Your task to perform on an android device: turn on priority inbox in the gmail app Image 0: 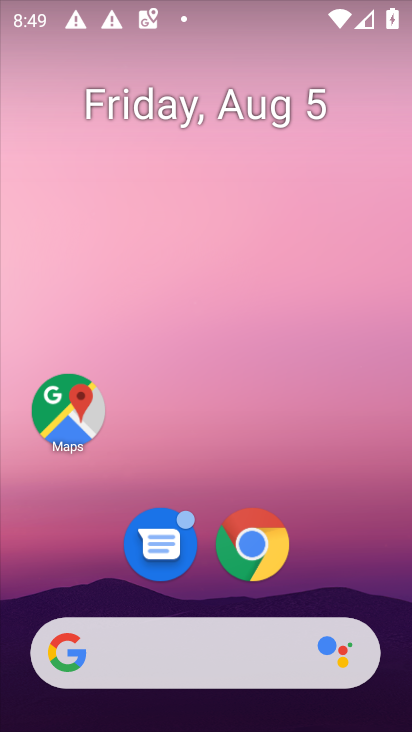
Step 0: drag from (308, 539) to (304, 0)
Your task to perform on an android device: turn on priority inbox in the gmail app Image 1: 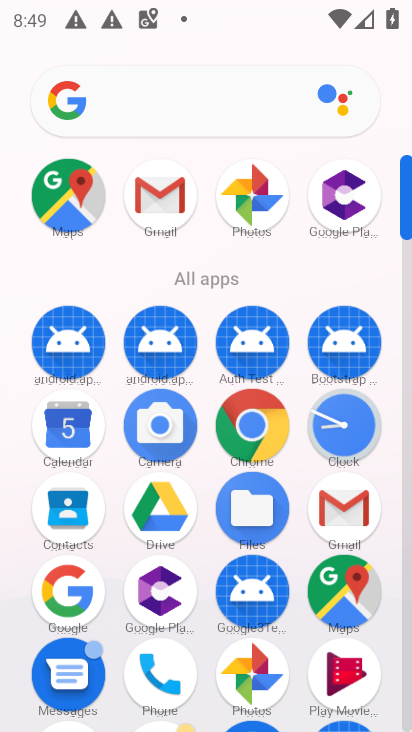
Step 1: click (165, 190)
Your task to perform on an android device: turn on priority inbox in the gmail app Image 2: 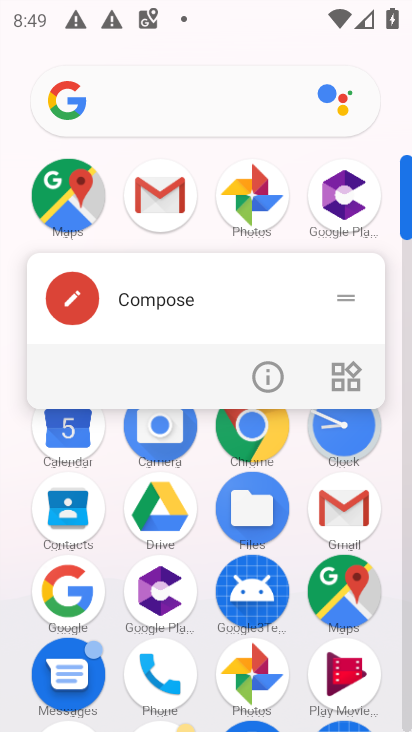
Step 2: click (165, 190)
Your task to perform on an android device: turn on priority inbox in the gmail app Image 3: 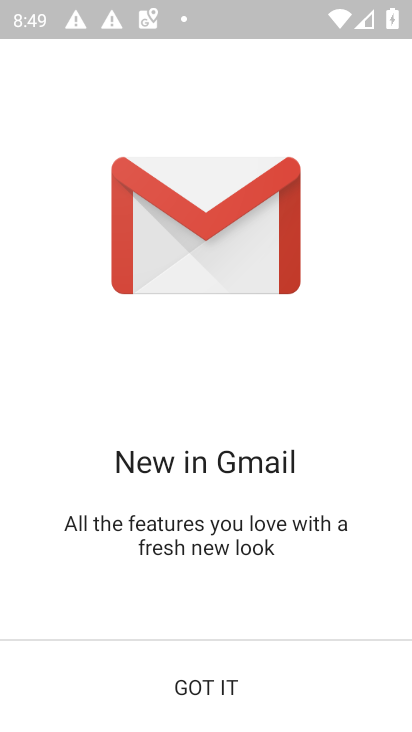
Step 3: click (229, 692)
Your task to perform on an android device: turn on priority inbox in the gmail app Image 4: 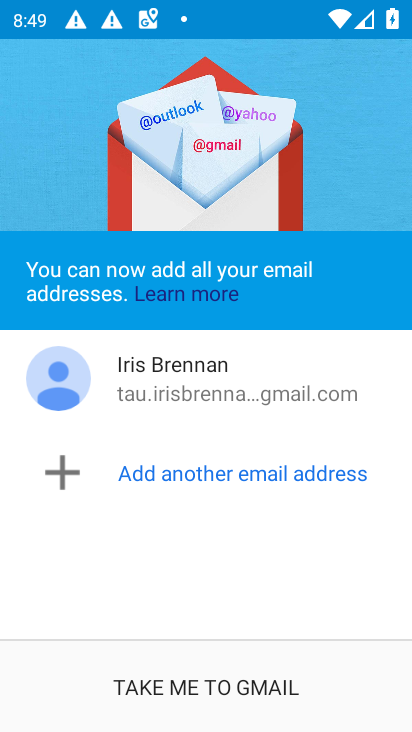
Step 4: click (236, 662)
Your task to perform on an android device: turn on priority inbox in the gmail app Image 5: 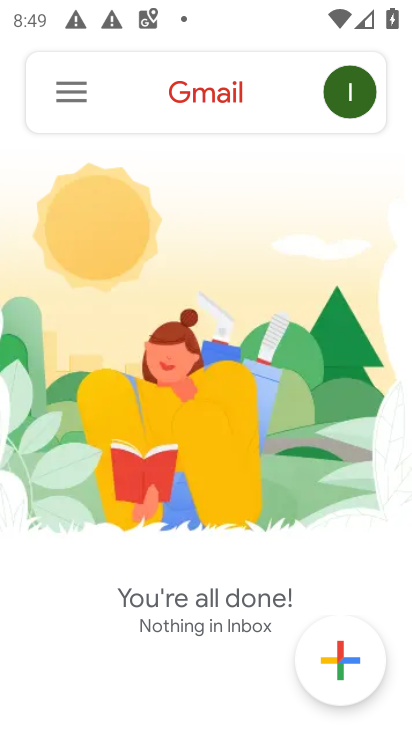
Step 5: click (69, 94)
Your task to perform on an android device: turn on priority inbox in the gmail app Image 6: 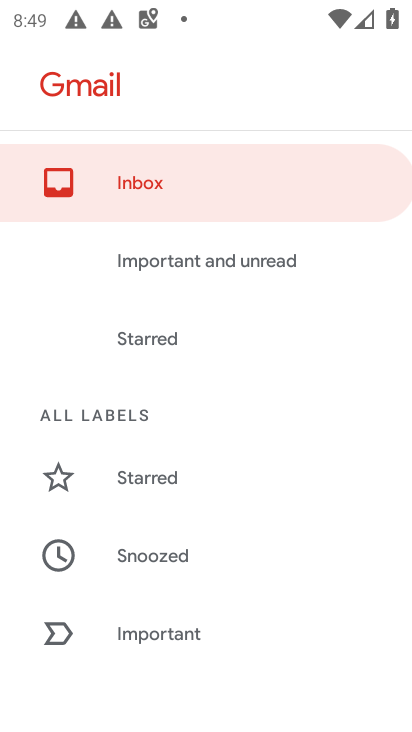
Step 6: drag from (150, 416) to (170, 143)
Your task to perform on an android device: turn on priority inbox in the gmail app Image 7: 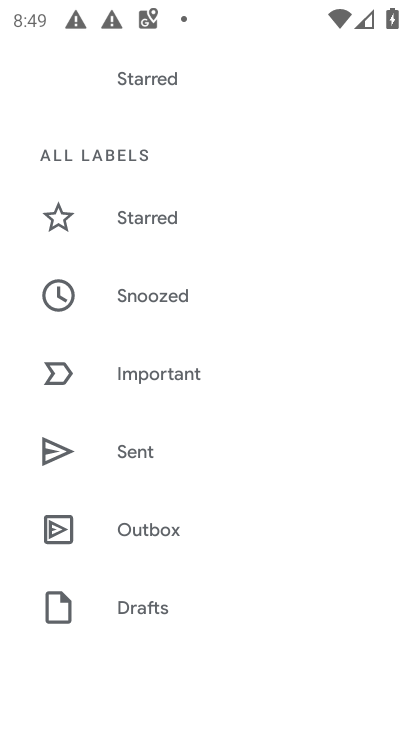
Step 7: drag from (176, 517) to (149, 172)
Your task to perform on an android device: turn on priority inbox in the gmail app Image 8: 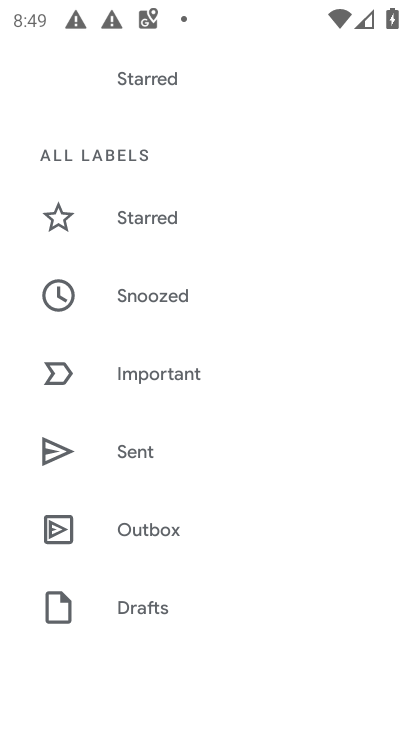
Step 8: drag from (222, 574) to (267, 165)
Your task to perform on an android device: turn on priority inbox in the gmail app Image 9: 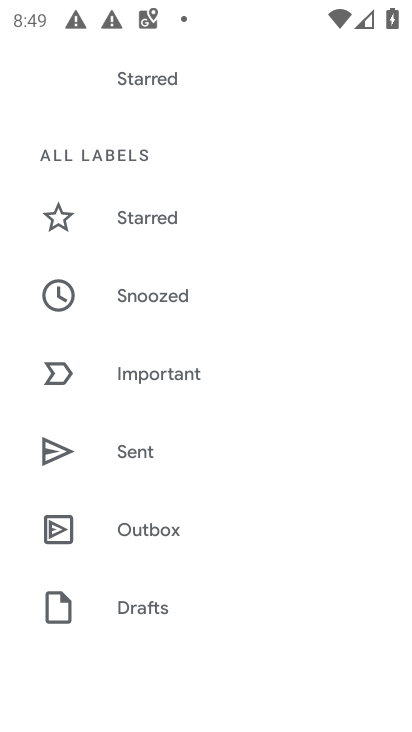
Step 9: drag from (103, 610) to (120, 84)
Your task to perform on an android device: turn on priority inbox in the gmail app Image 10: 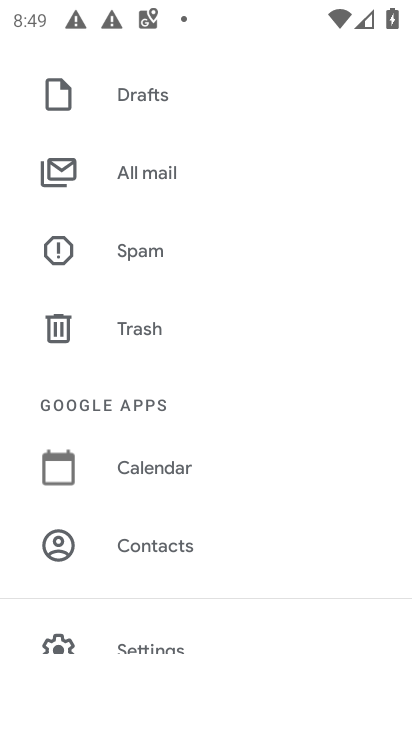
Step 10: drag from (153, 567) to (194, 150)
Your task to perform on an android device: turn on priority inbox in the gmail app Image 11: 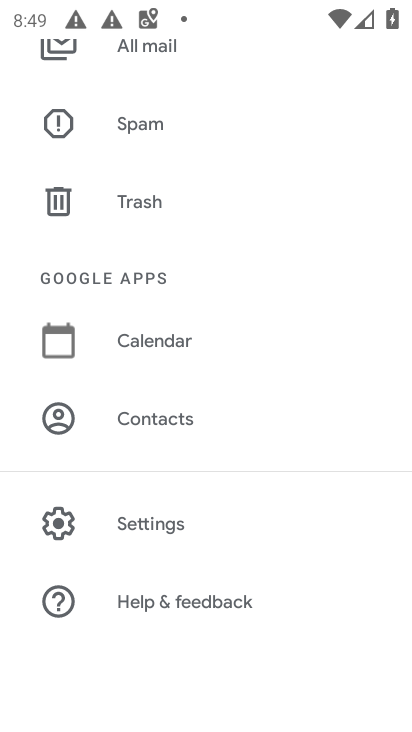
Step 11: click (150, 527)
Your task to perform on an android device: turn on priority inbox in the gmail app Image 12: 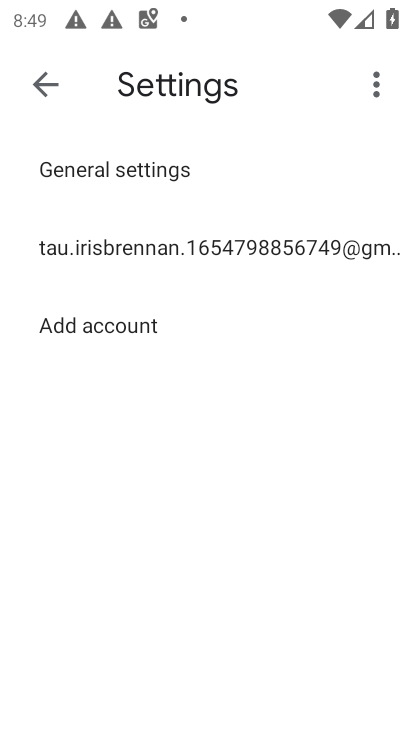
Step 12: click (92, 248)
Your task to perform on an android device: turn on priority inbox in the gmail app Image 13: 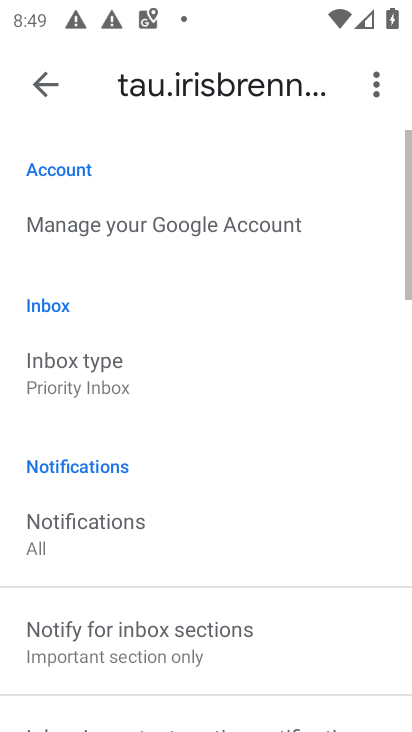
Step 13: click (72, 380)
Your task to perform on an android device: turn on priority inbox in the gmail app Image 14: 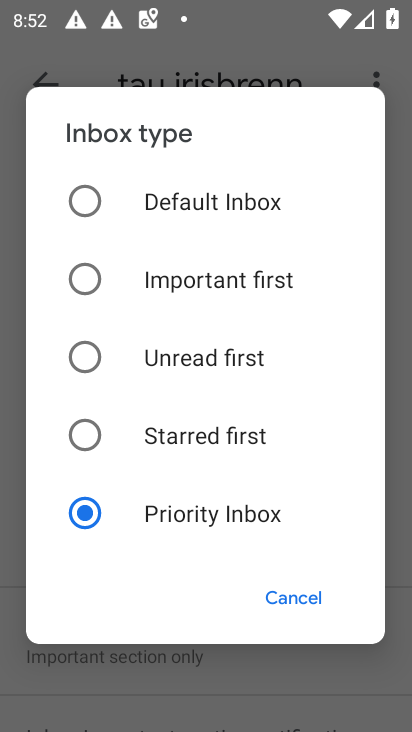
Step 14: task complete